Your task to perform on an android device: Is it going to rain tomorrow? Image 0: 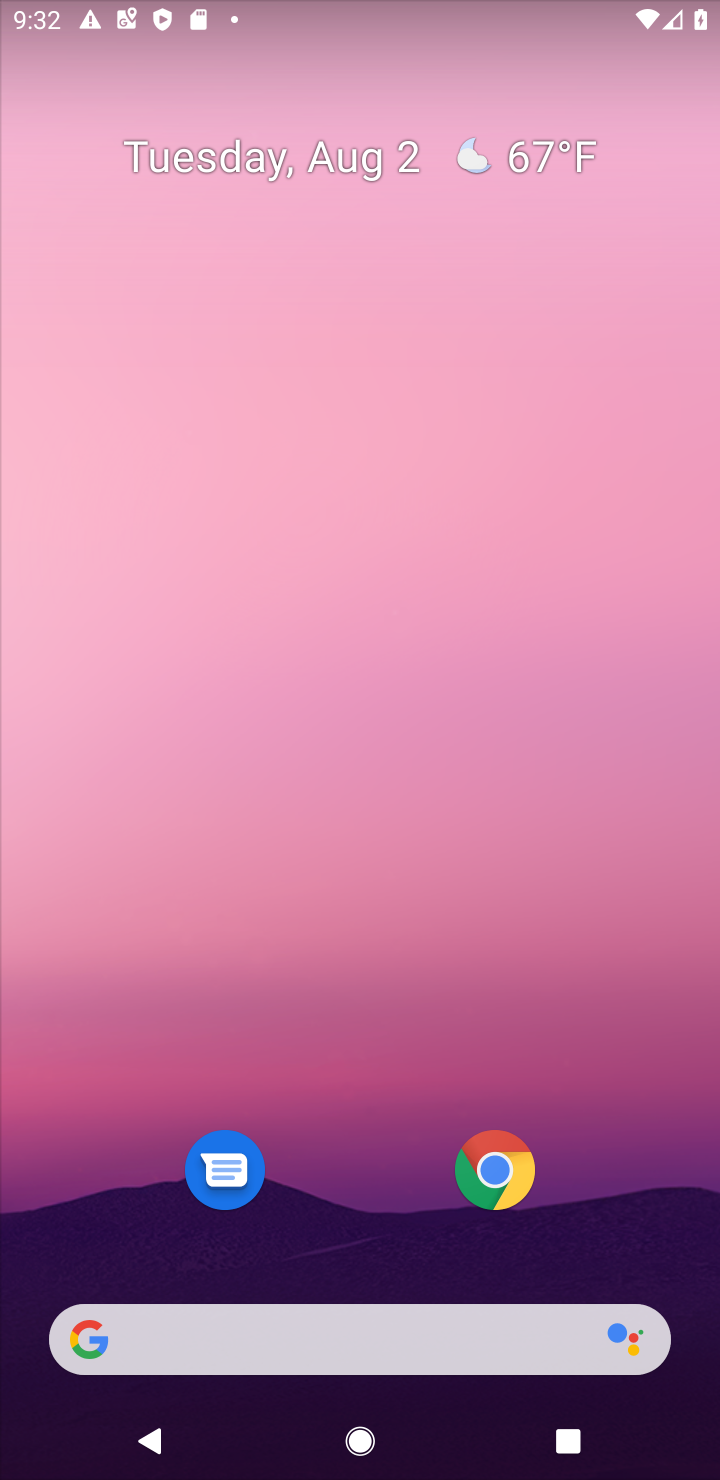
Step 0: drag from (271, 1241) to (322, 225)
Your task to perform on an android device: Is it going to rain tomorrow? Image 1: 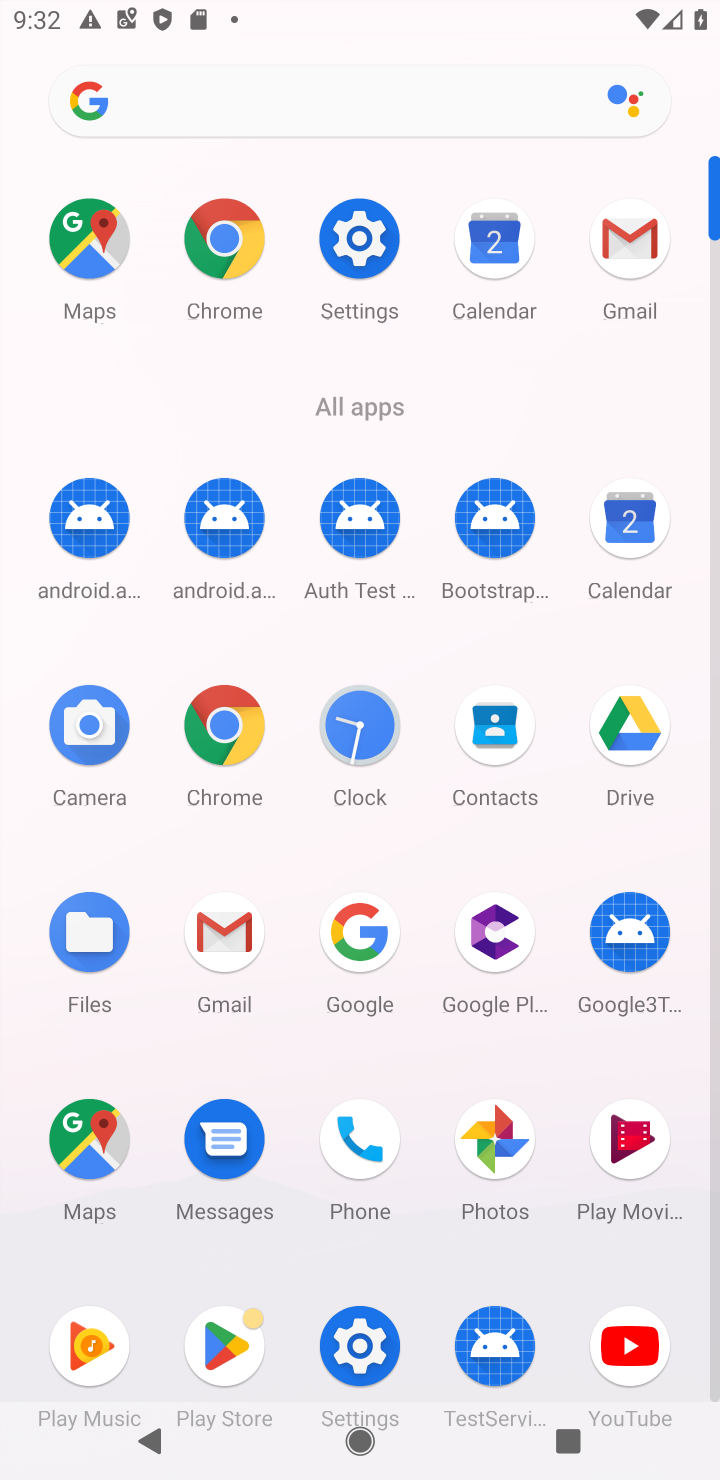
Step 1: click (375, 967)
Your task to perform on an android device: Is it going to rain tomorrow? Image 2: 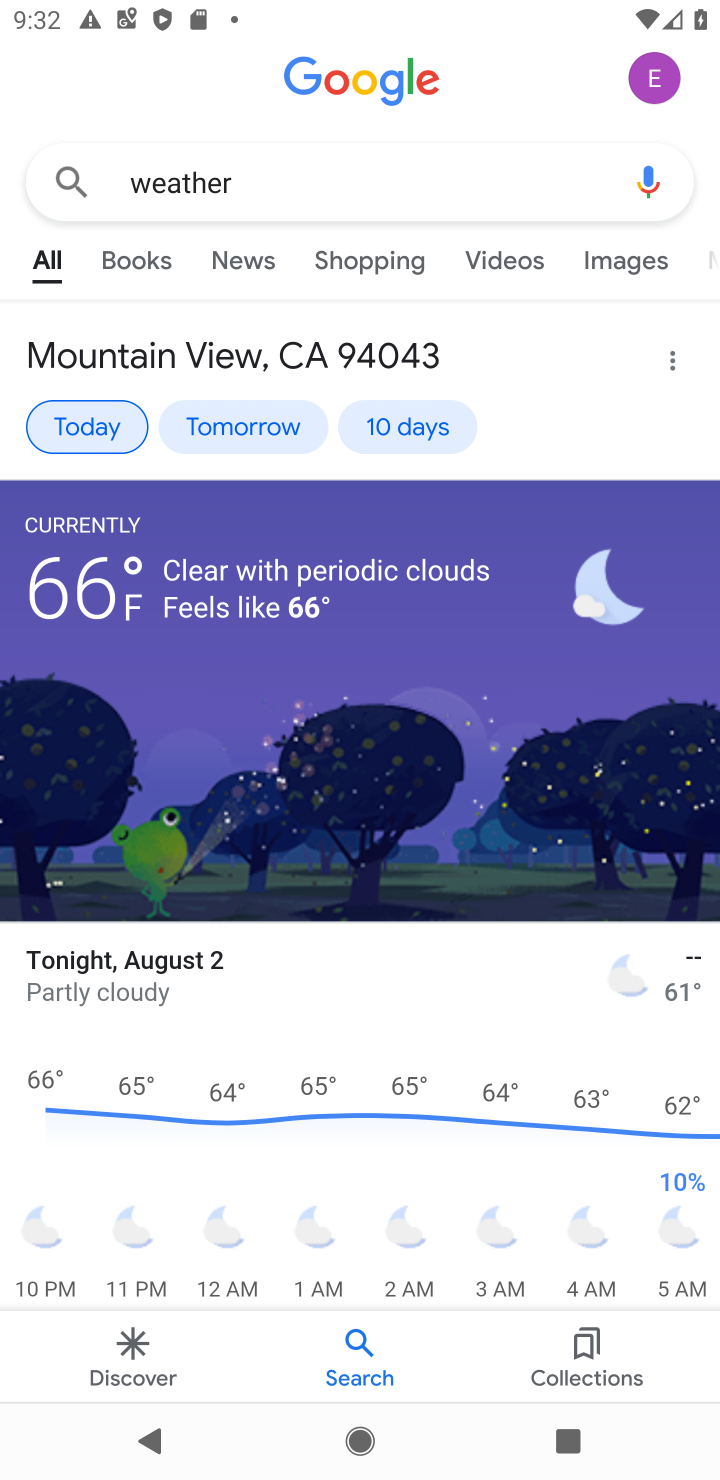
Step 2: click (231, 412)
Your task to perform on an android device: Is it going to rain tomorrow? Image 3: 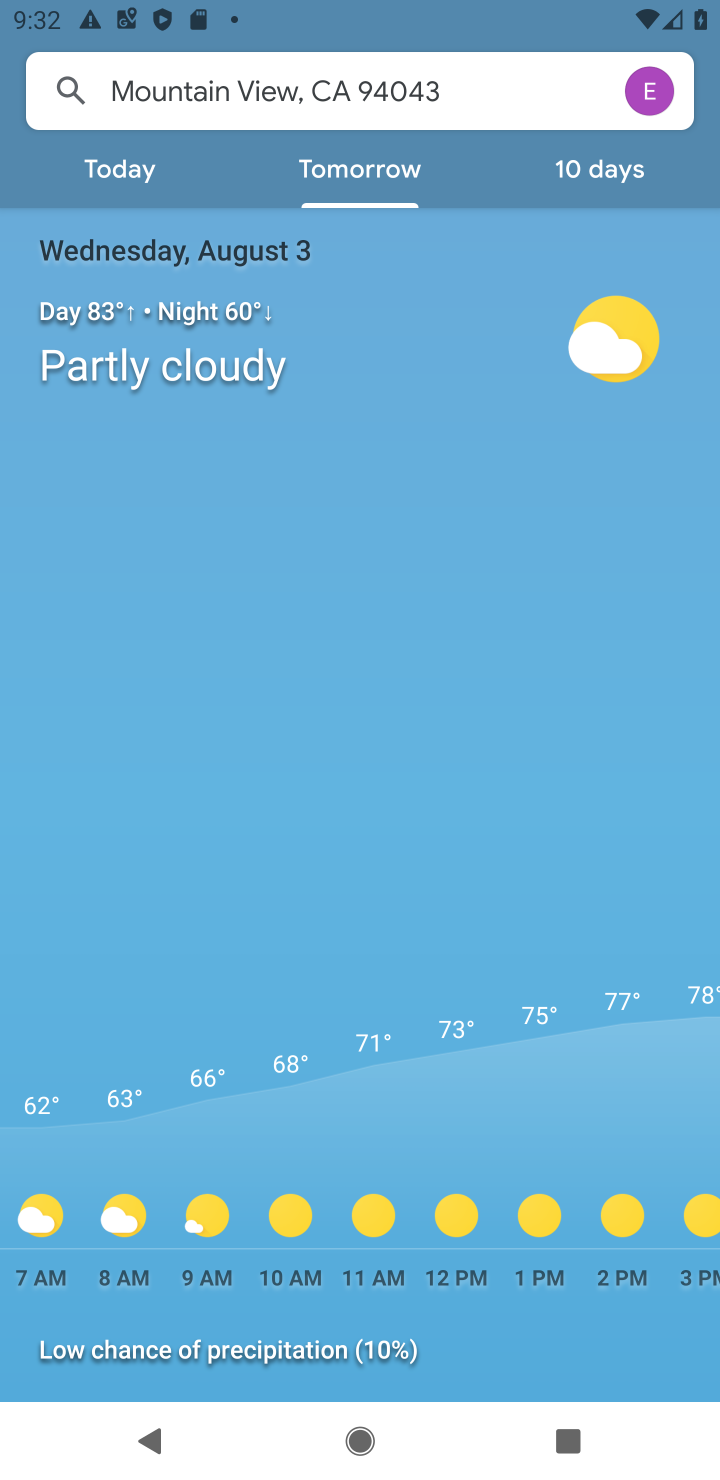
Step 3: task complete